Your task to perform on an android device: Open ESPN.com Image 0: 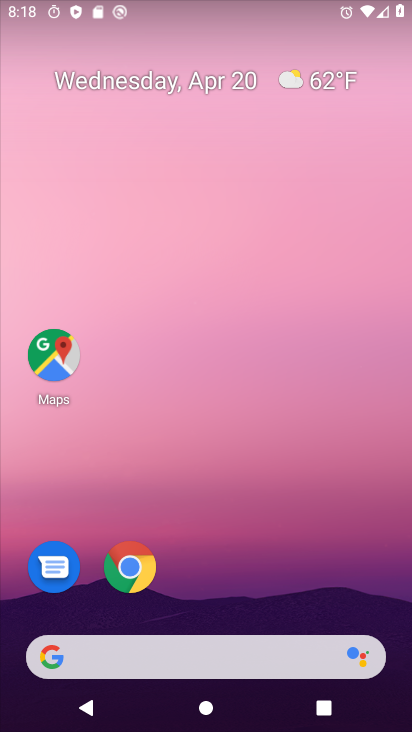
Step 0: click (135, 573)
Your task to perform on an android device: Open ESPN.com Image 1: 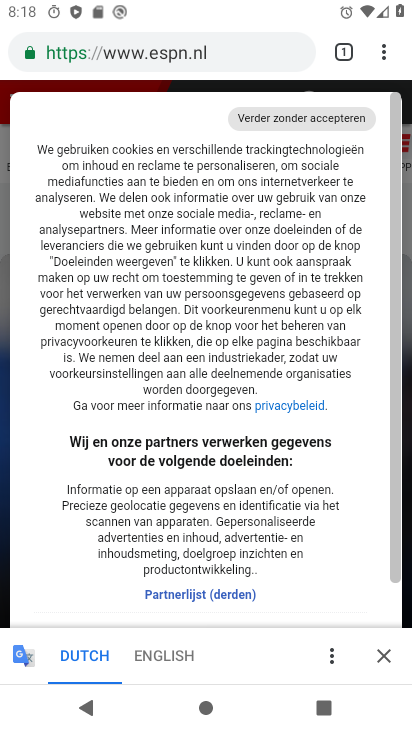
Step 1: task complete